Your task to perform on an android device: Go to Android settings Image 0: 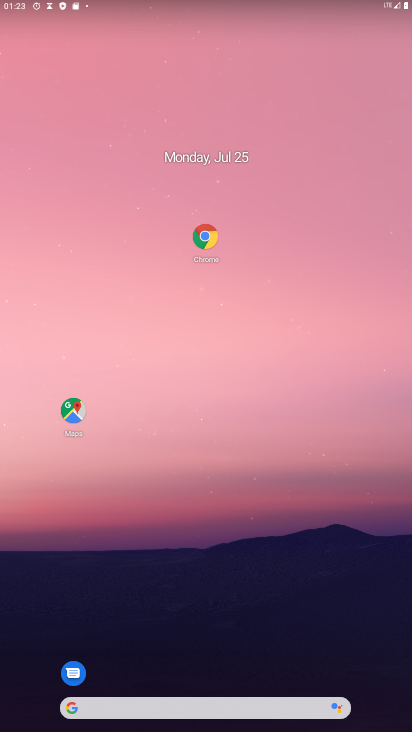
Step 0: drag from (299, 714) to (333, 94)
Your task to perform on an android device: Go to Android settings Image 1: 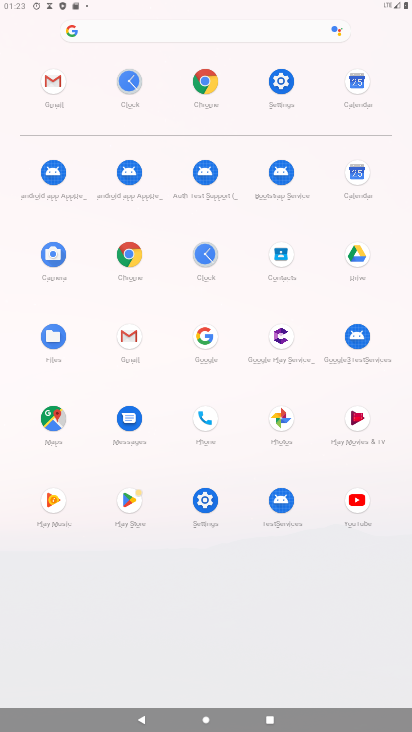
Step 1: click (285, 80)
Your task to perform on an android device: Go to Android settings Image 2: 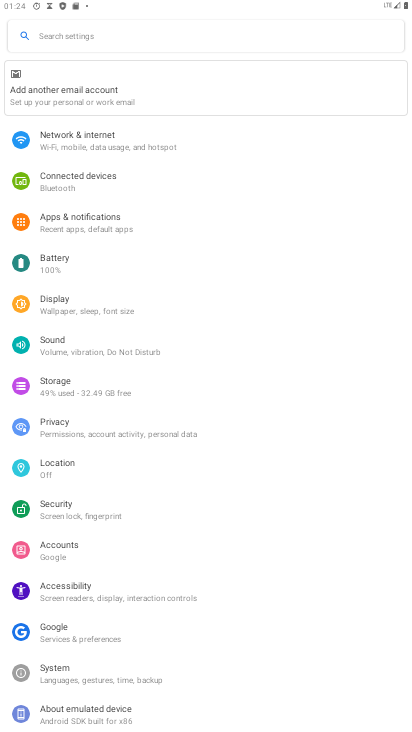
Step 2: drag from (148, 654) to (187, 109)
Your task to perform on an android device: Go to Android settings Image 3: 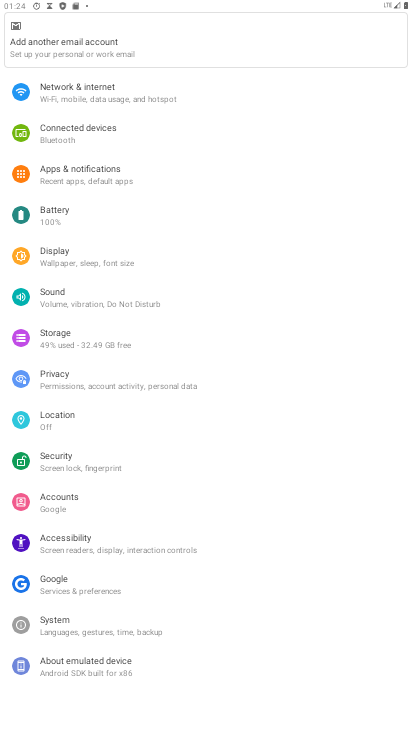
Step 3: click (141, 673)
Your task to perform on an android device: Go to Android settings Image 4: 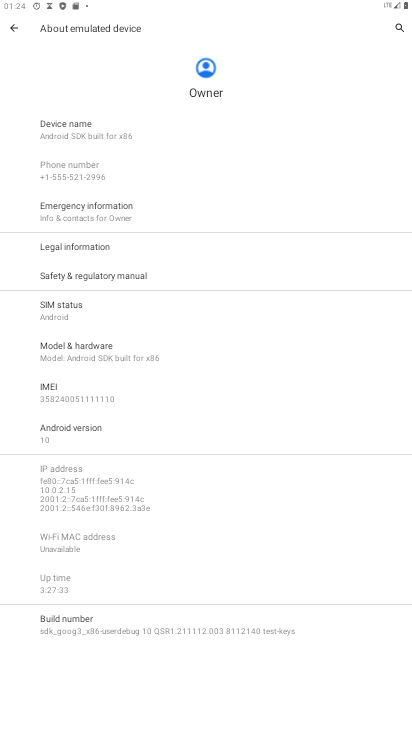
Step 4: click (104, 427)
Your task to perform on an android device: Go to Android settings Image 5: 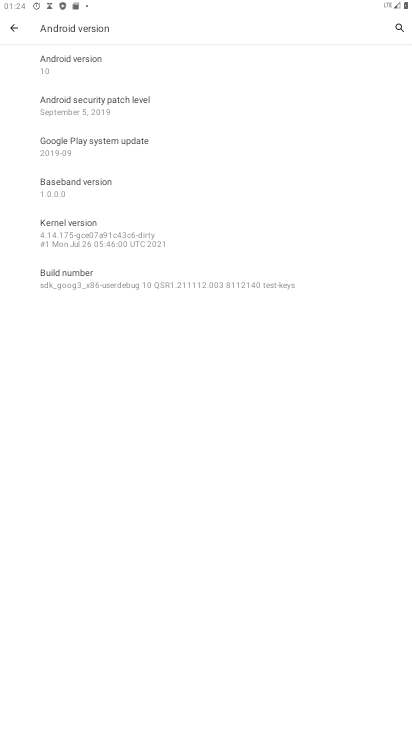
Step 5: task complete